Your task to perform on an android device: Is it going to rain today? Image 0: 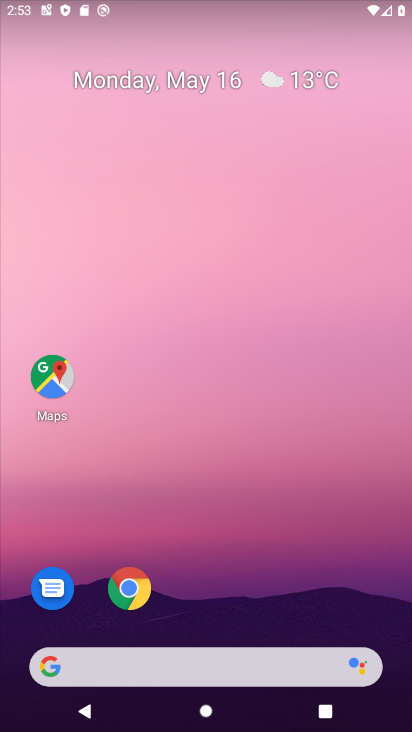
Step 0: drag from (332, 372) to (367, 3)
Your task to perform on an android device: Is it going to rain today? Image 1: 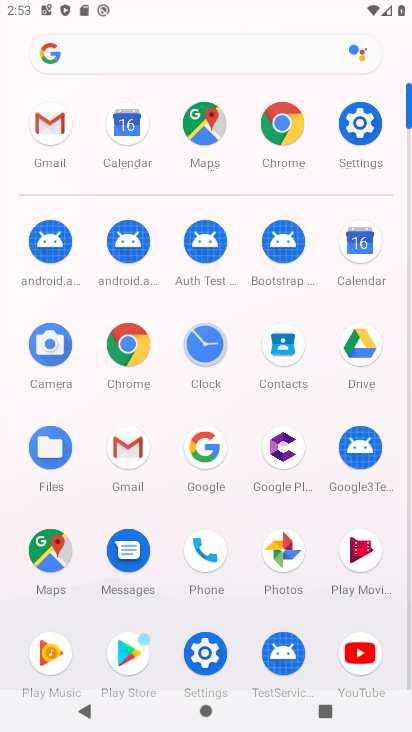
Step 1: click (128, 352)
Your task to perform on an android device: Is it going to rain today? Image 2: 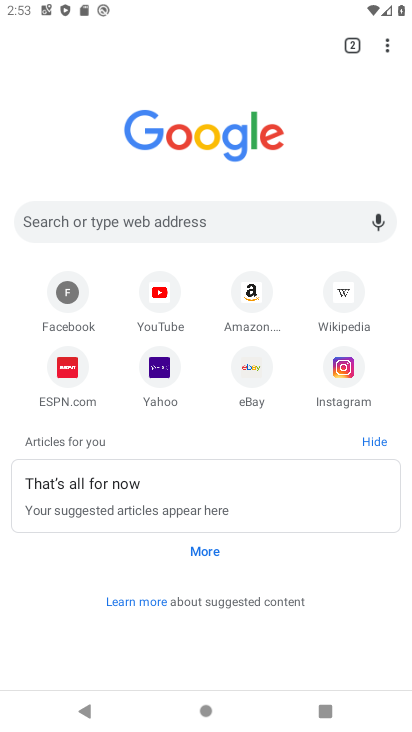
Step 2: press home button
Your task to perform on an android device: Is it going to rain today? Image 3: 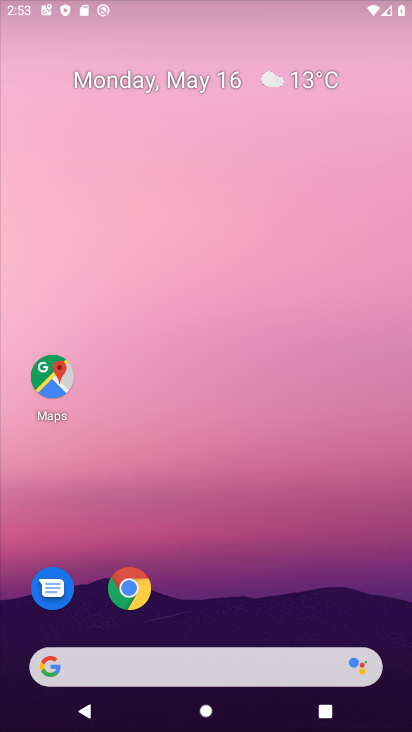
Step 3: drag from (23, 327) to (390, 352)
Your task to perform on an android device: Is it going to rain today? Image 4: 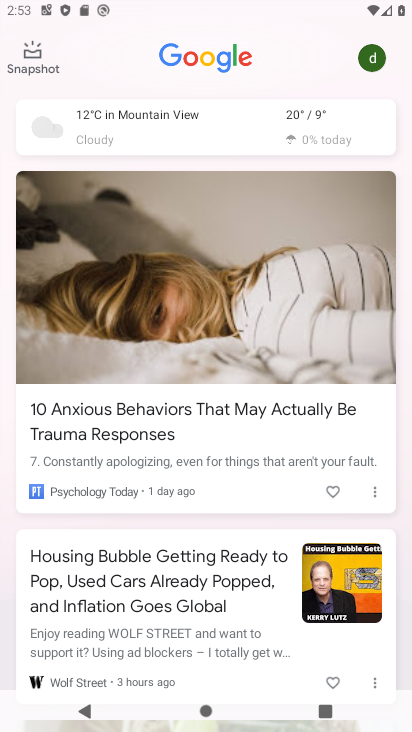
Step 4: click (197, 122)
Your task to perform on an android device: Is it going to rain today? Image 5: 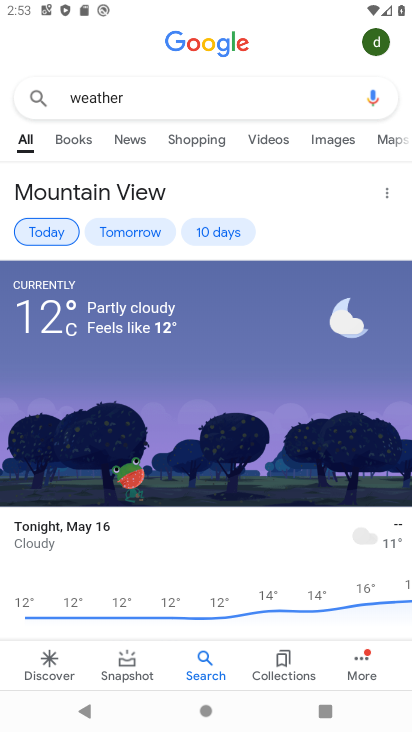
Step 5: task complete